Your task to perform on an android device: Show me the alarms in the clock app Image 0: 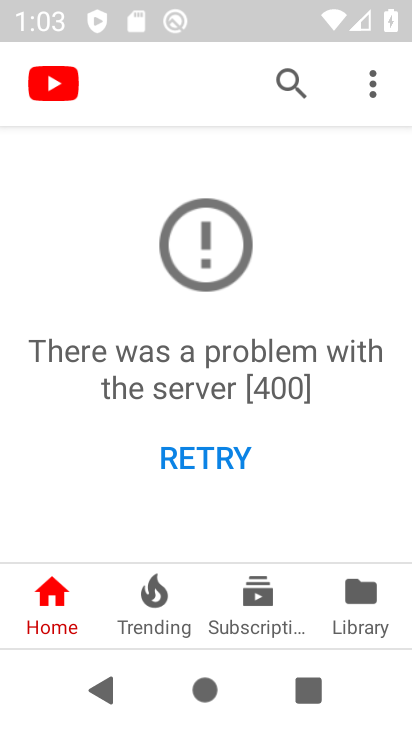
Step 0: press home button
Your task to perform on an android device: Show me the alarms in the clock app Image 1: 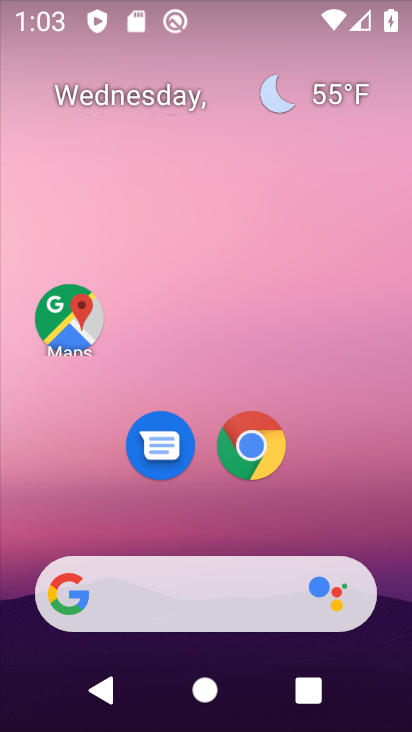
Step 1: drag from (101, 539) to (179, 160)
Your task to perform on an android device: Show me the alarms in the clock app Image 2: 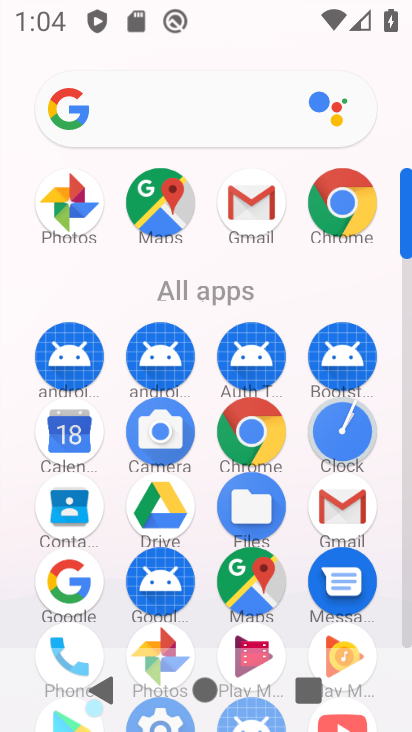
Step 2: click (325, 437)
Your task to perform on an android device: Show me the alarms in the clock app Image 3: 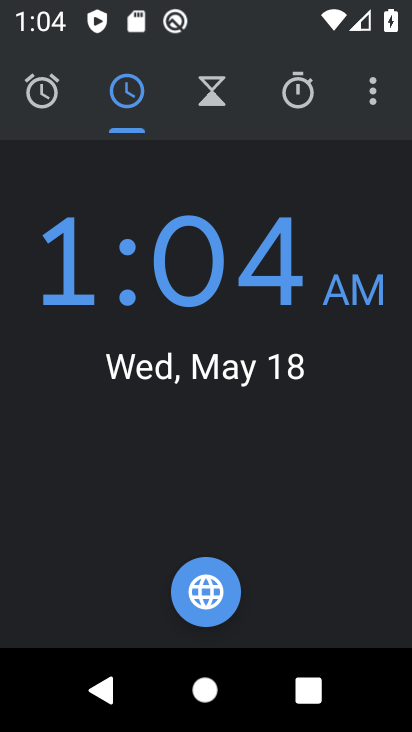
Step 3: click (63, 82)
Your task to perform on an android device: Show me the alarms in the clock app Image 4: 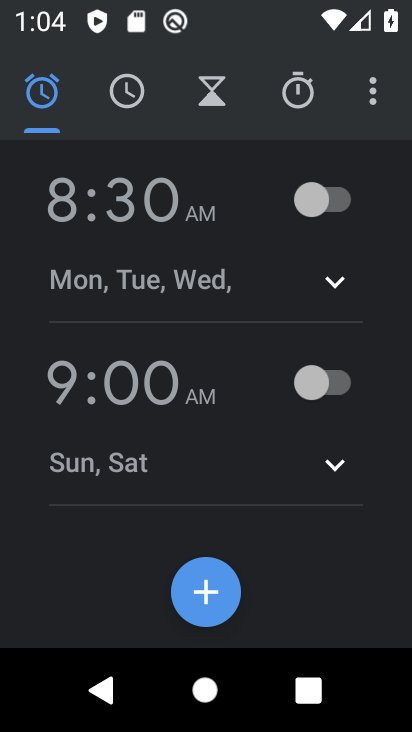
Step 4: task complete